Your task to perform on an android device: Search for Mexican restaurants on Maps Image 0: 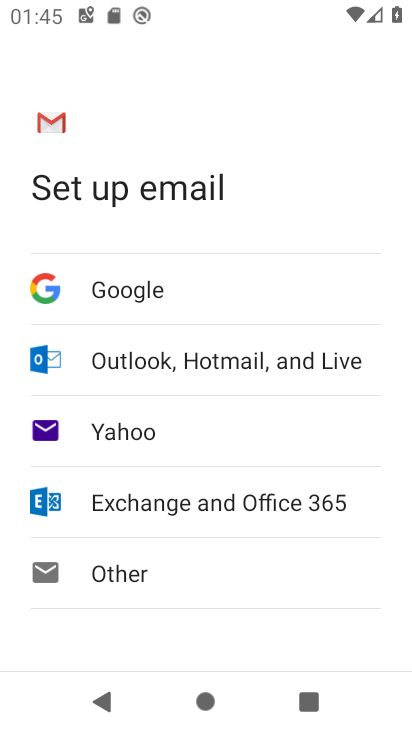
Step 0: press home button
Your task to perform on an android device: Search for Mexican restaurants on Maps Image 1: 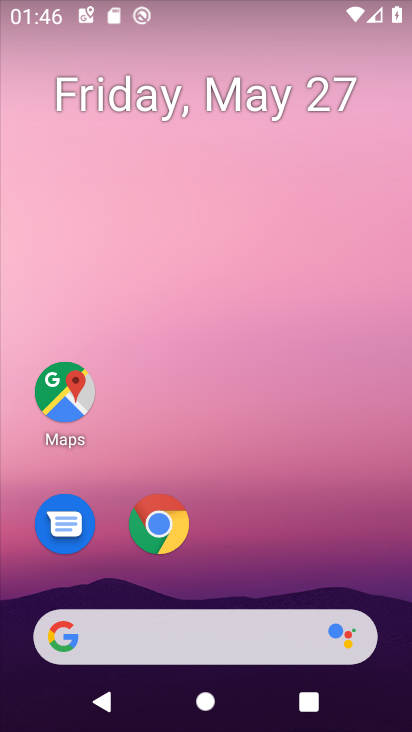
Step 1: click (73, 394)
Your task to perform on an android device: Search for Mexican restaurants on Maps Image 2: 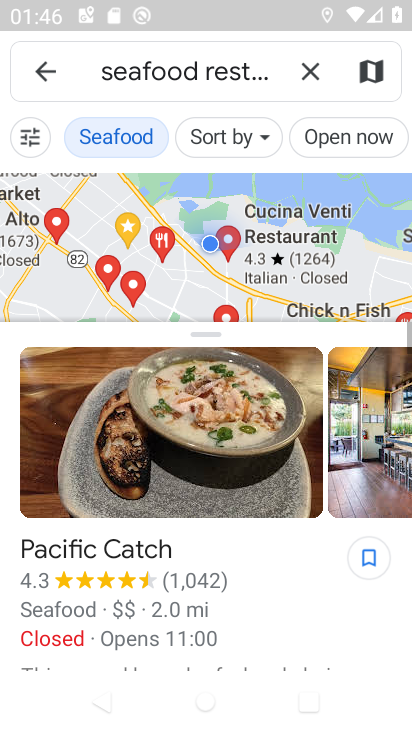
Step 2: click (309, 59)
Your task to perform on an android device: Search for Mexican restaurants on Maps Image 3: 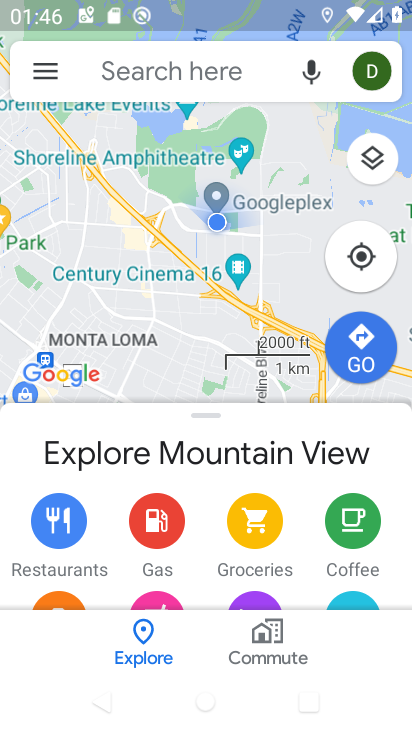
Step 3: click (192, 65)
Your task to perform on an android device: Search for Mexican restaurants on Maps Image 4: 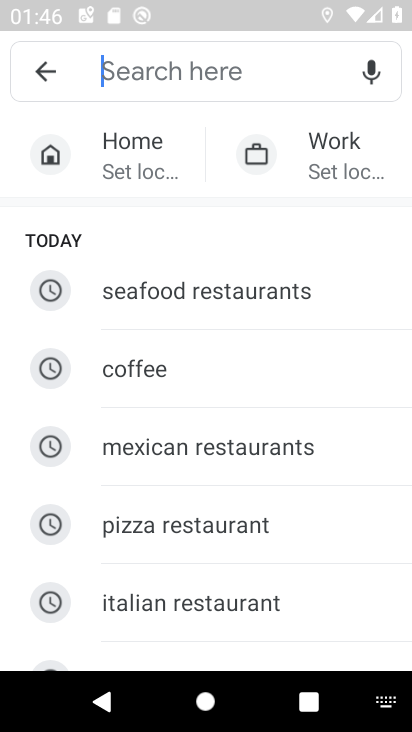
Step 4: click (238, 438)
Your task to perform on an android device: Search for Mexican restaurants on Maps Image 5: 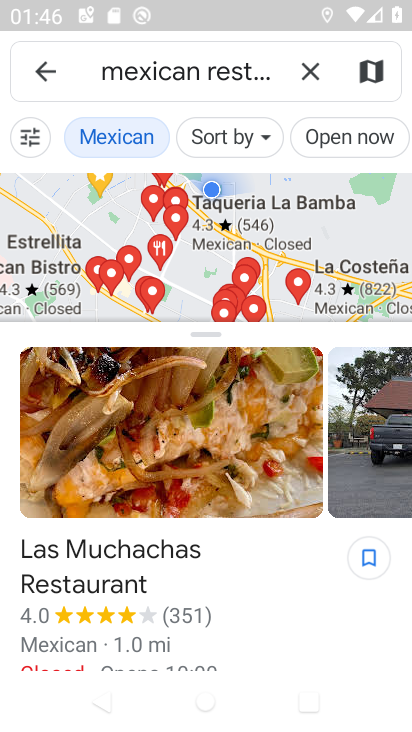
Step 5: task complete